Your task to perform on an android device: toggle translation in the chrome app Image 0: 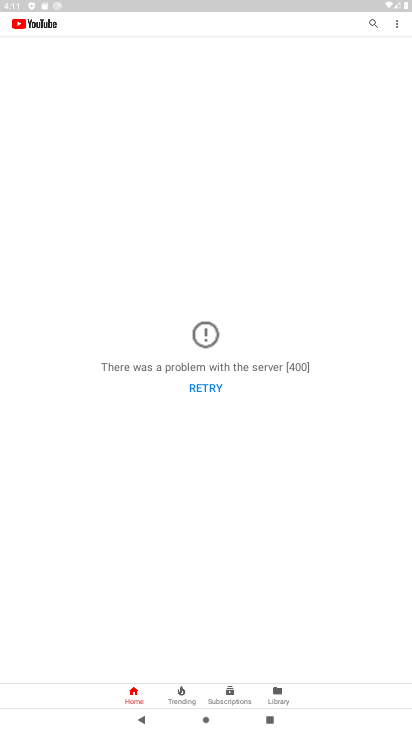
Step 0: press home button
Your task to perform on an android device: toggle translation in the chrome app Image 1: 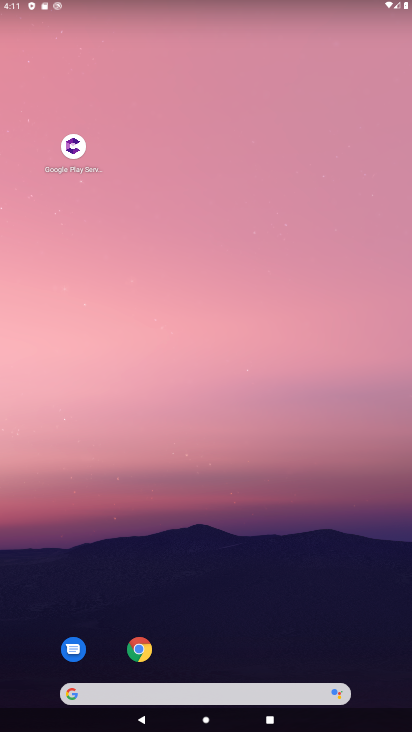
Step 1: drag from (331, 452) to (147, 0)
Your task to perform on an android device: toggle translation in the chrome app Image 2: 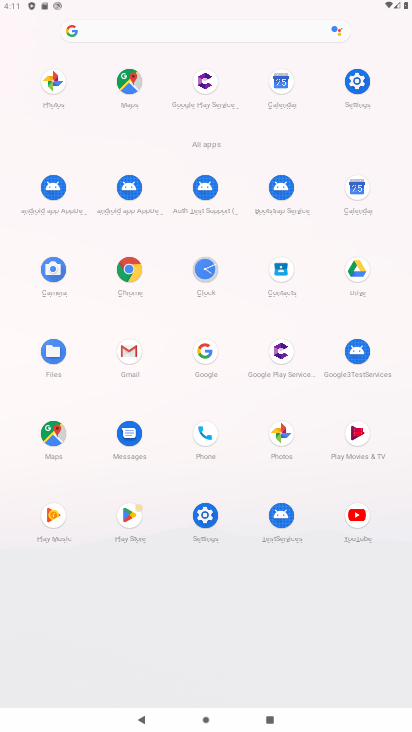
Step 2: click (132, 274)
Your task to perform on an android device: toggle translation in the chrome app Image 3: 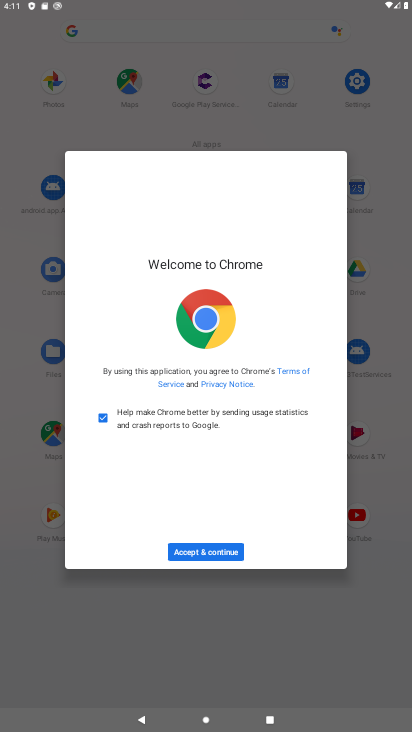
Step 3: click (183, 552)
Your task to perform on an android device: toggle translation in the chrome app Image 4: 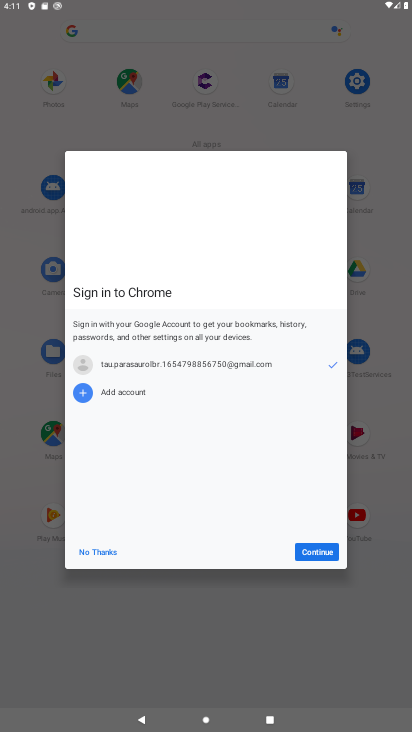
Step 4: click (82, 539)
Your task to perform on an android device: toggle translation in the chrome app Image 5: 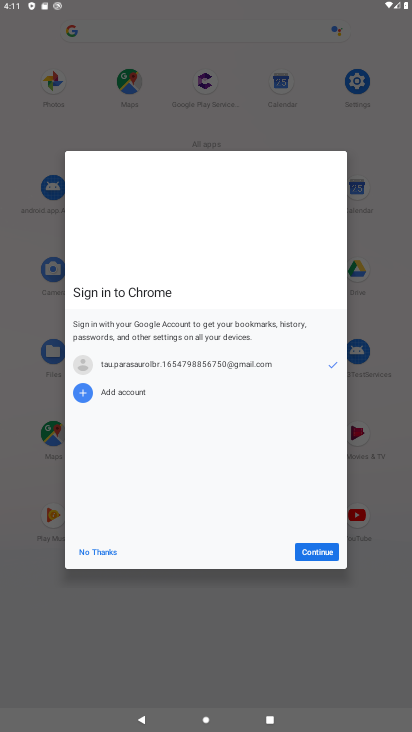
Step 5: click (89, 555)
Your task to perform on an android device: toggle translation in the chrome app Image 6: 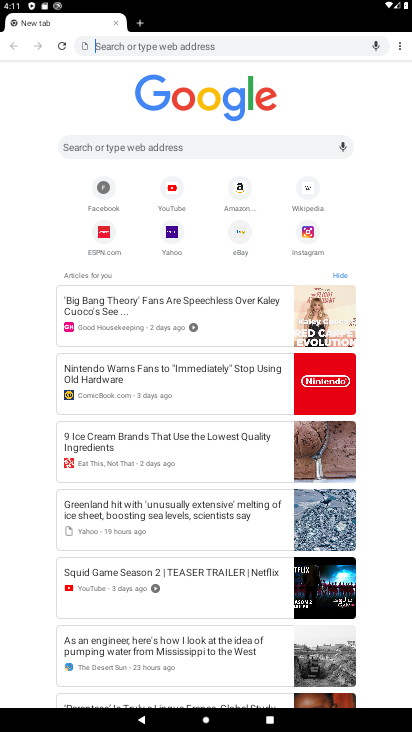
Step 6: drag from (400, 48) to (337, 200)
Your task to perform on an android device: toggle translation in the chrome app Image 7: 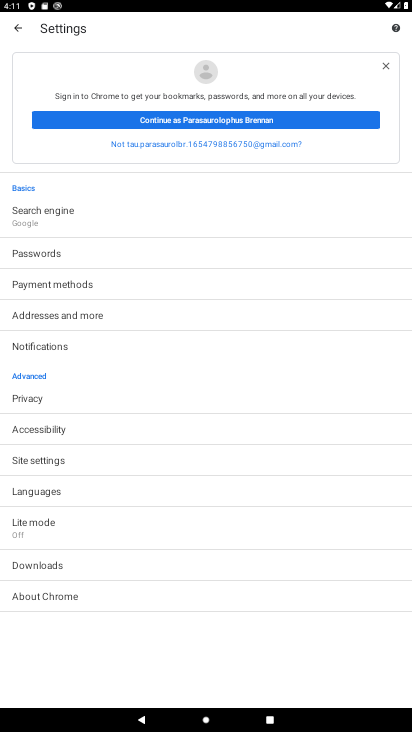
Step 7: click (70, 490)
Your task to perform on an android device: toggle translation in the chrome app Image 8: 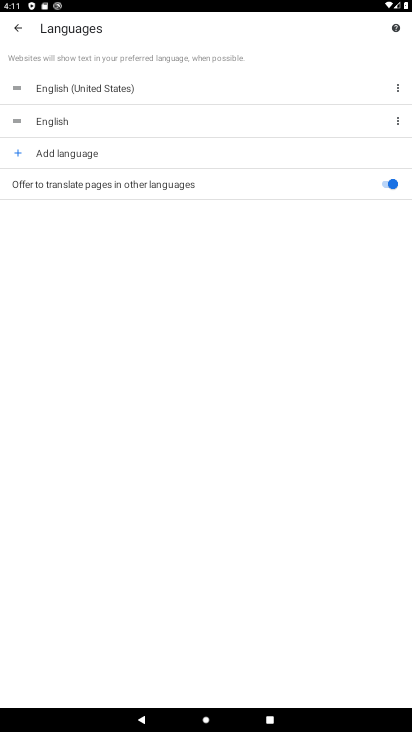
Step 8: click (385, 182)
Your task to perform on an android device: toggle translation in the chrome app Image 9: 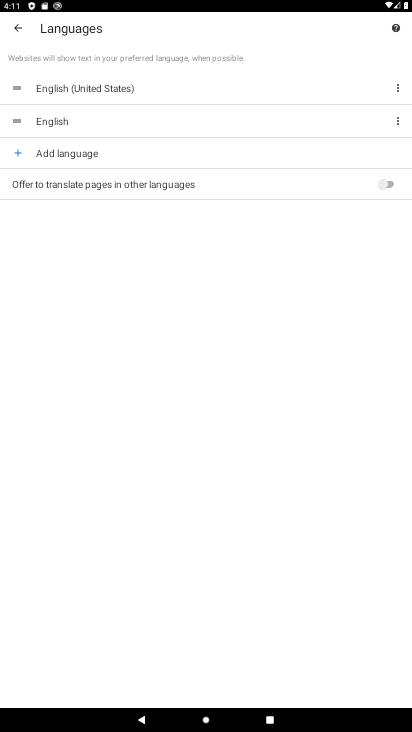
Step 9: task complete